Your task to perform on an android device: all mails in gmail Image 0: 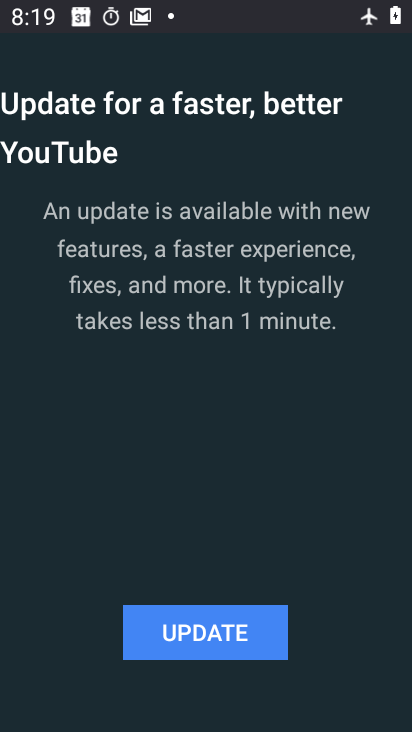
Step 0: press back button
Your task to perform on an android device: all mails in gmail Image 1: 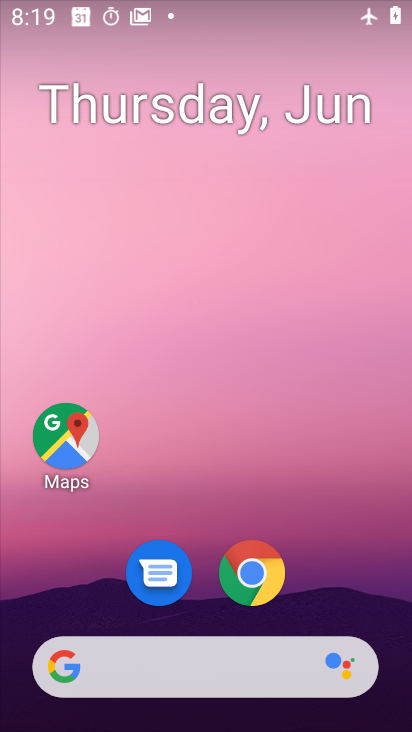
Step 1: drag from (321, 542) to (352, 272)
Your task to perform on an android device: all mails in gmail Image 2: 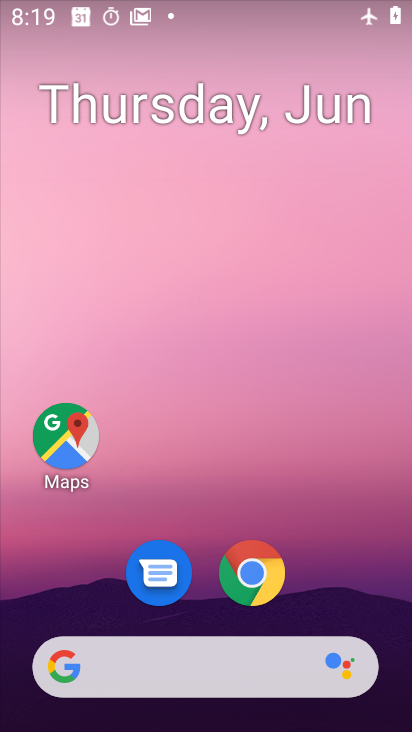
Step 2: drag from (234, 637) to (288, 231)
Your task to perform on an android device: all mails in gmail Image 3: 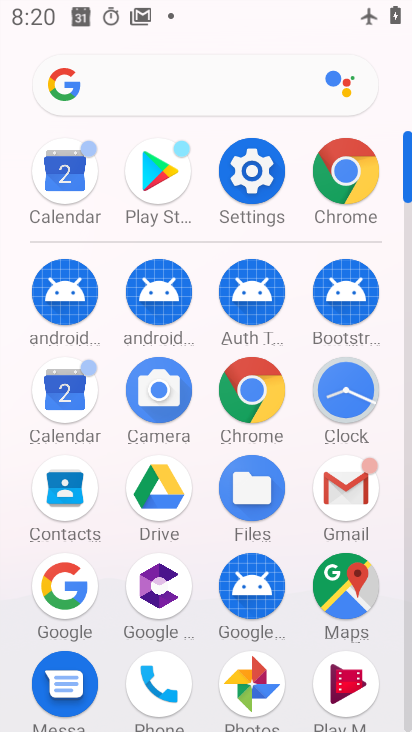
Step 3: click (361, 478)
Your task to perform on an android device: all mails in gmail Image 4: 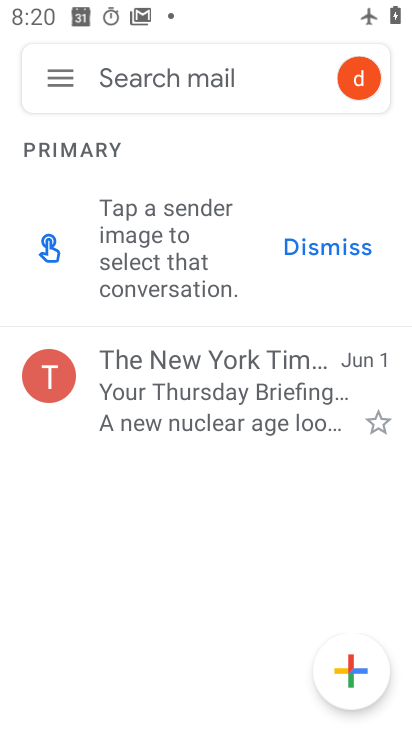
Step 4: click (59, 61)
Your task to perform on an android device: all mails in gmail Image 5: 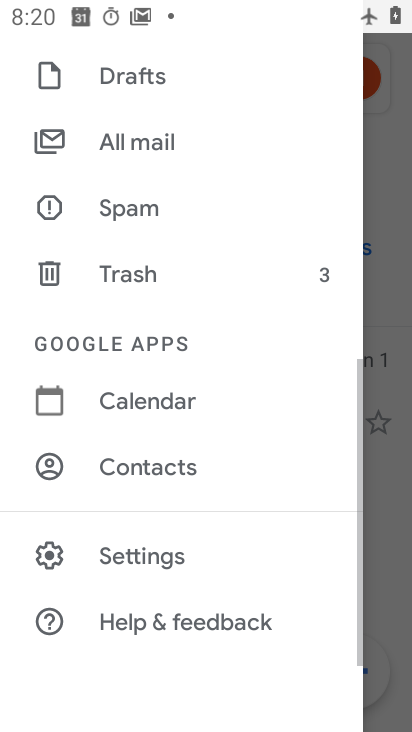
Step 5: click (177, 122)
Your task to perform on an android device: all mails in gmail Image 6: 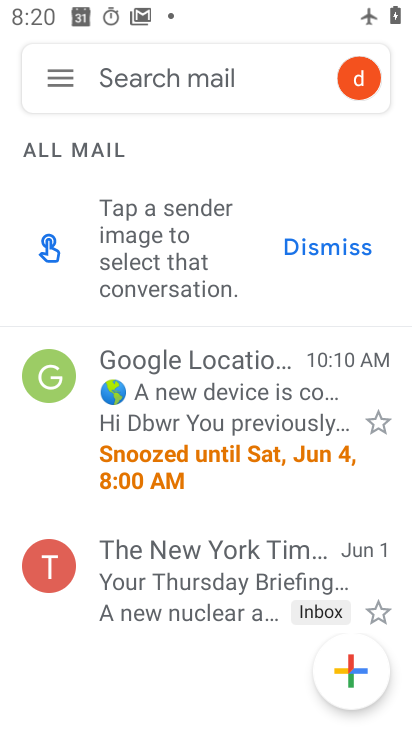
Step 6: task complete